Your task to perform on an android device: toggle show notifications on the lock screen Image 0: 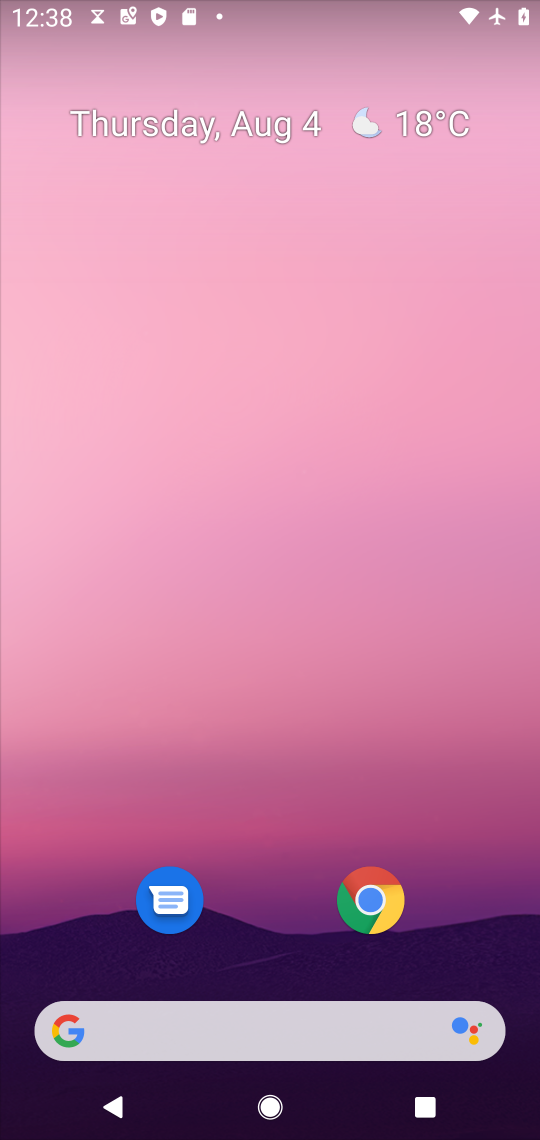
Step 0: press home button
Your task to perform on an android device: toggle show notifications on the lock screen Image 1: 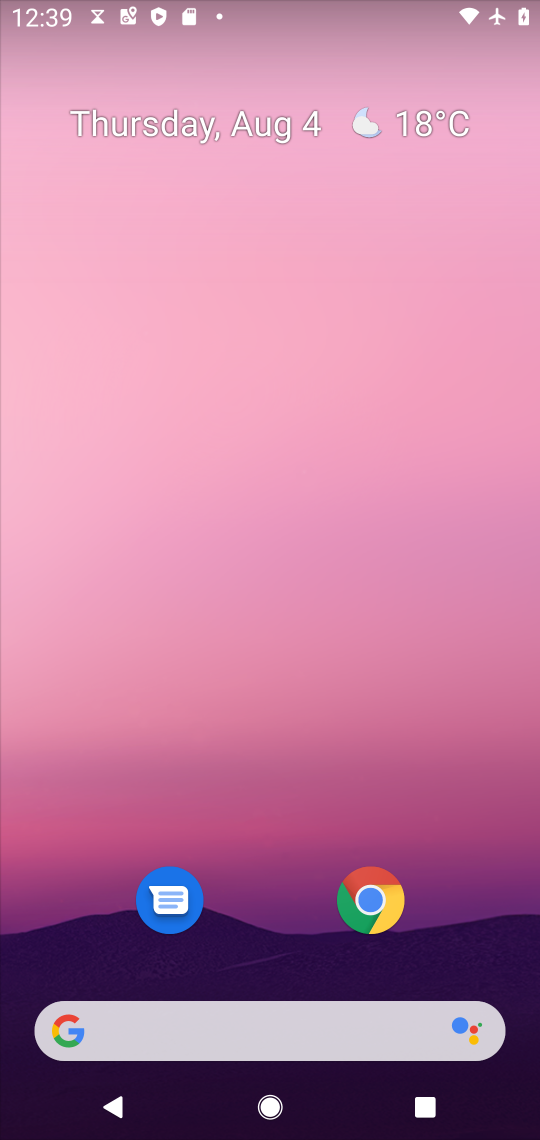
Step 1: drag from (312, 940) to (326, 269)
Your task to perform on an android device: toggle show notifications on the lock screen Image 2: 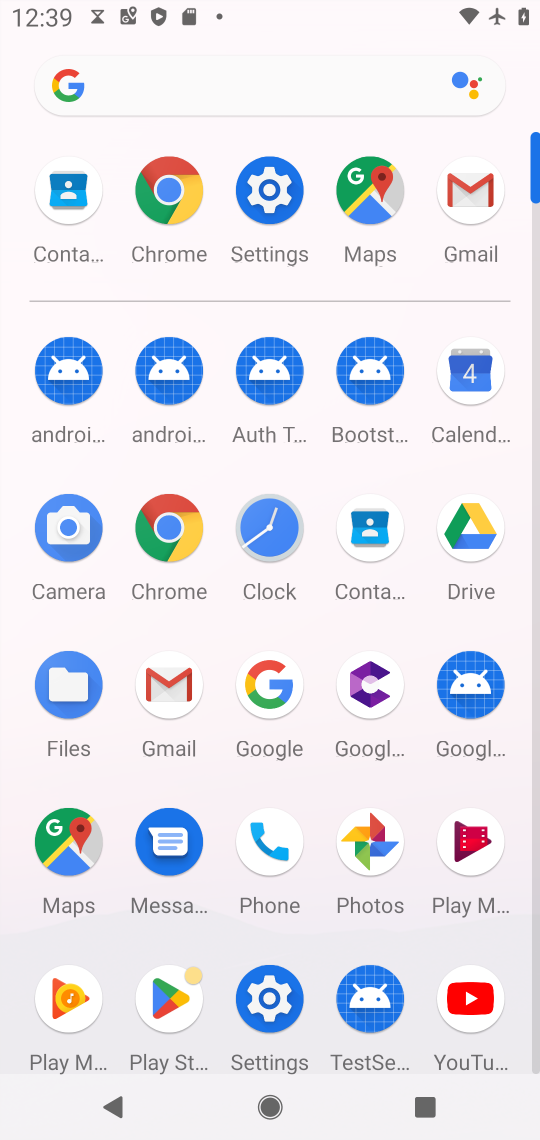
Step 2: click (270, 191)
Your task to perform on an android device: toggle show notifications on the lock screen Image 3: 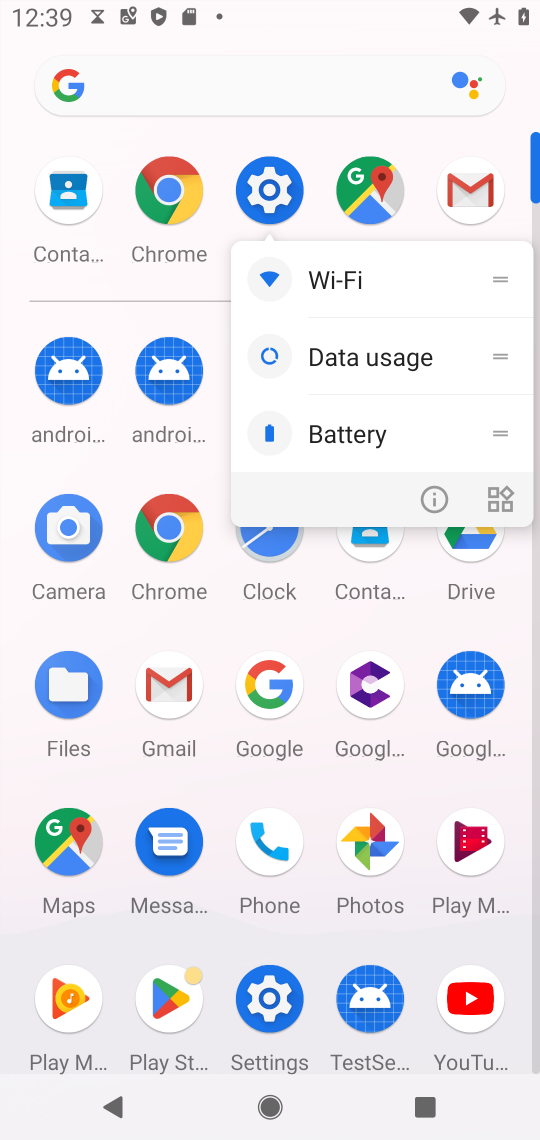
Step 3: click (282, 199)
Your task to perform on an android device: toggle show notifications on the lock screen Image 4: 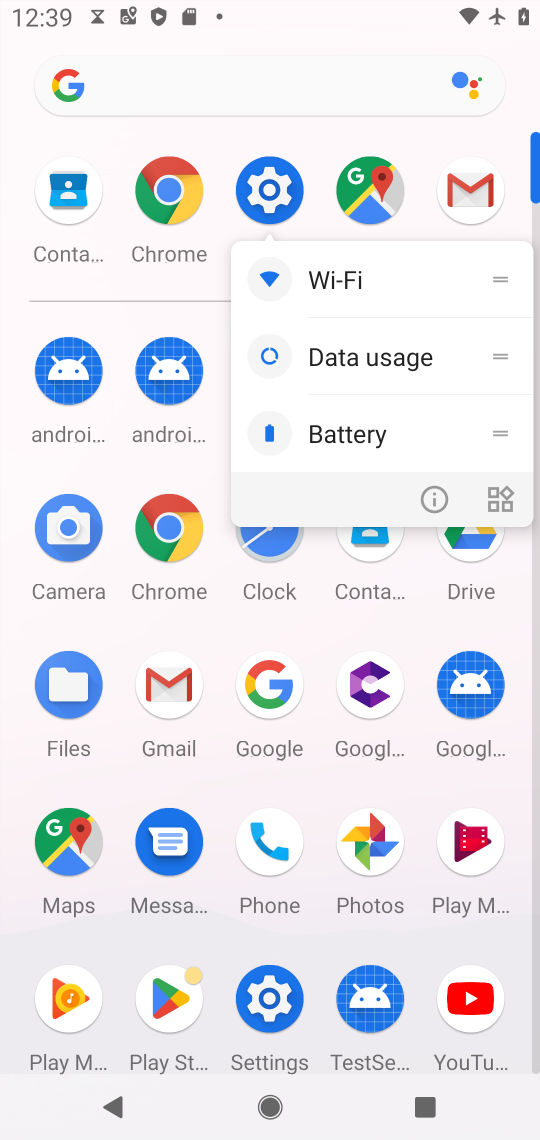
Step 4: click (259, 185)
Your task to perform on an android device: toggle show notifications on the lock screen Image 5: 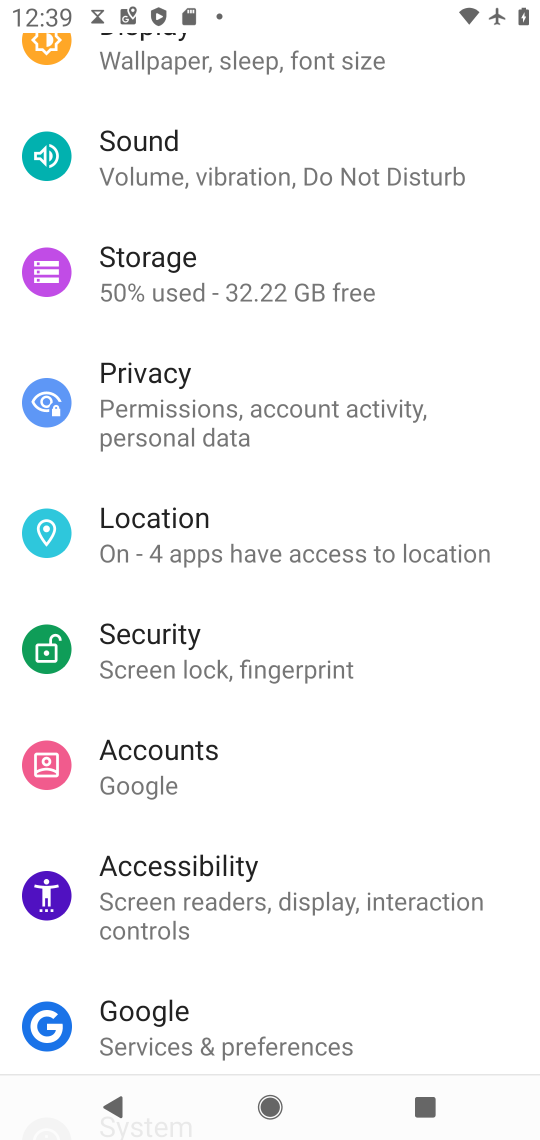
Step 5: drag from (370, 246) to (475, 874)
Your task to perform on an android device: toggle show notifications on the lock screen Image 6: 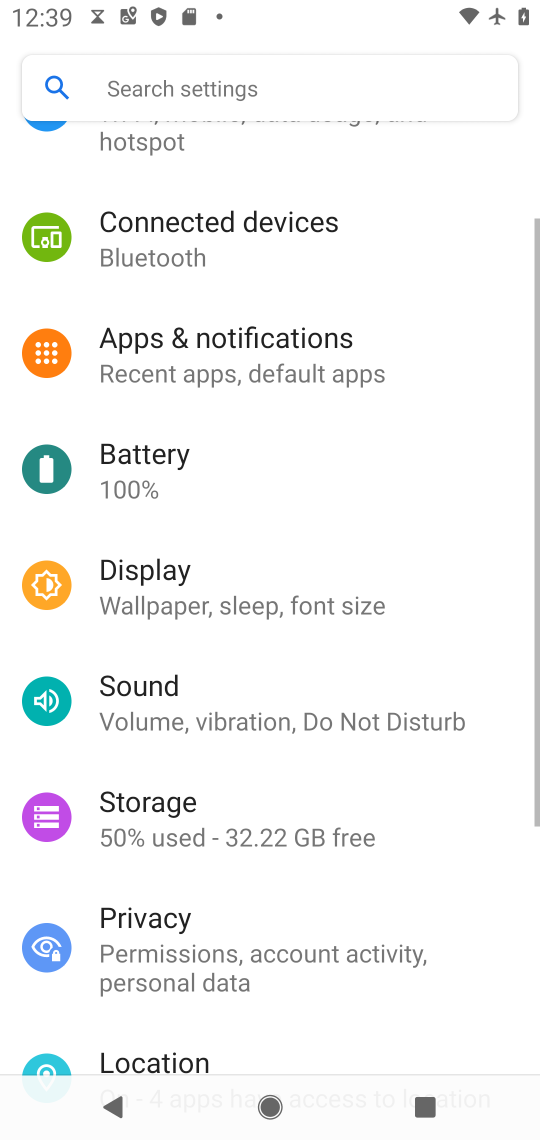
Step 6: click (225, 359)
Your task to perform on an android device: toggle show notifications on the lock screen Image 7: 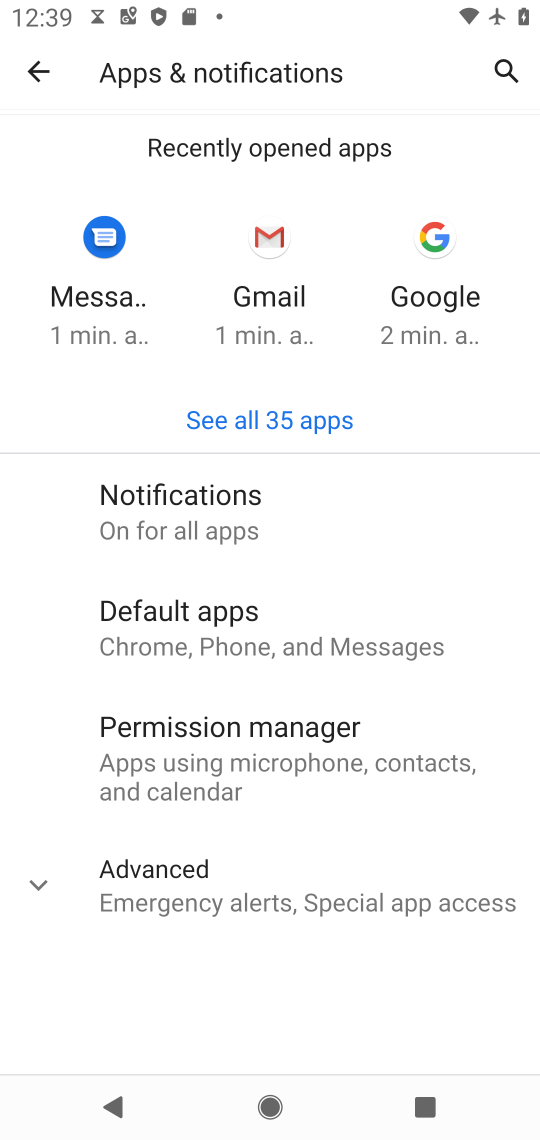
Step 7: click (166, 500)
Your task to perform on an android device: toggle show notifications on the lock screen Image 8: 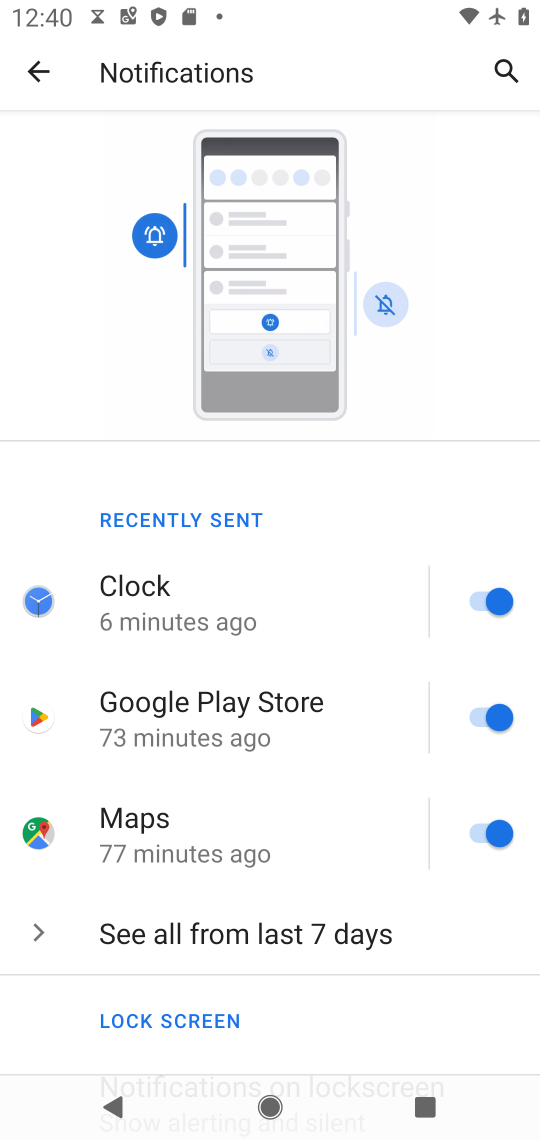
Step 8: drag from (431, 1026) to (408, 82)
Your task to perform on an android device: toggle show notifications on the lock screen Image 9: 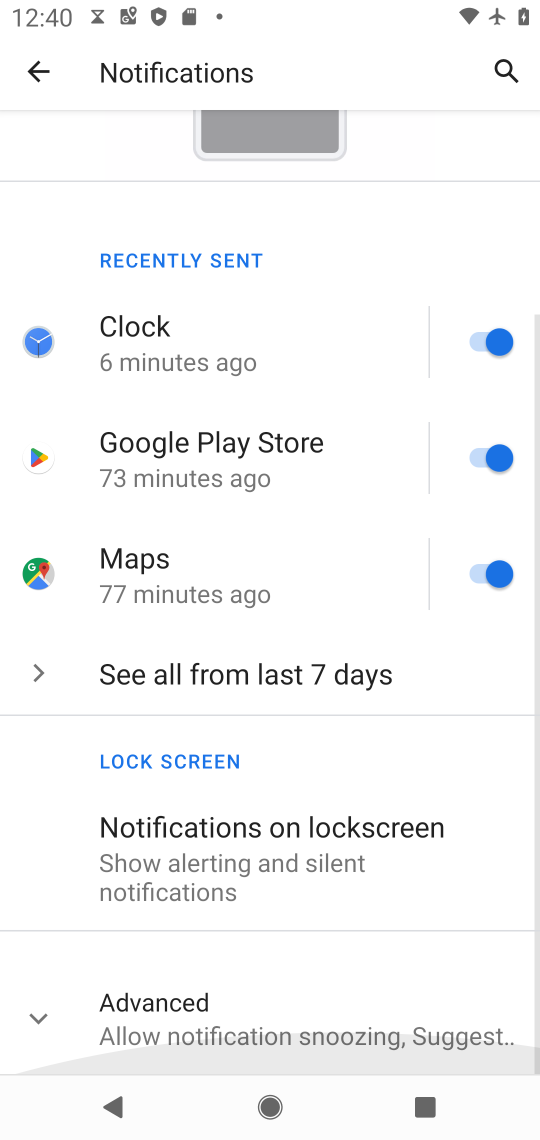
Step 9: click (226, 856)
Your task to perform on an android device: toggle show notifications on the lock screen Image 10: 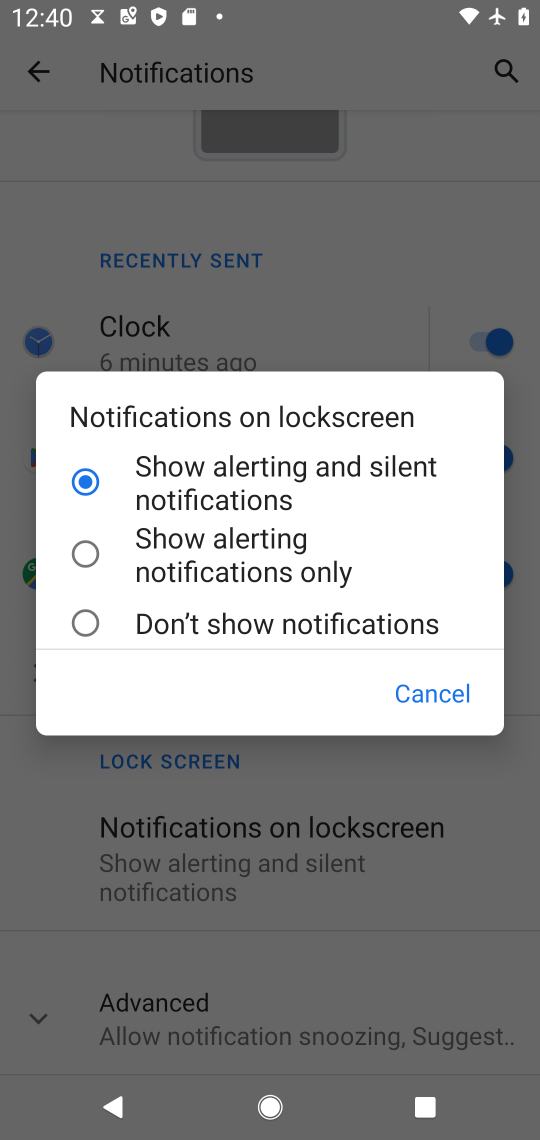
Step 10: click (97, 633)
Your task to perform on an android device: toggle show notifications on the lock screen Image 11: 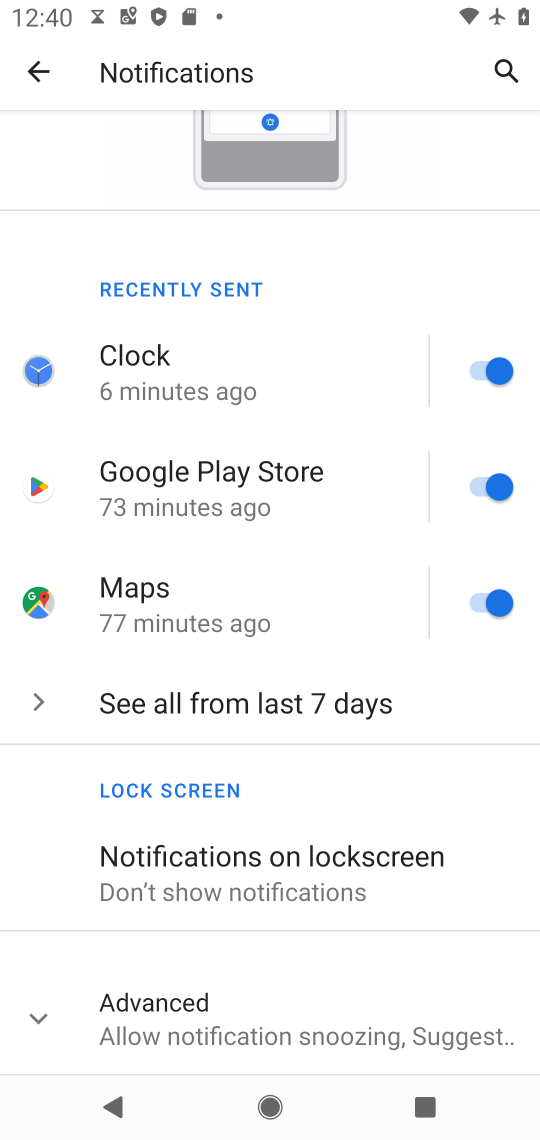
Step 11: task complete